Your task to perform on an android device: turn off notifications in google photos Image 0: 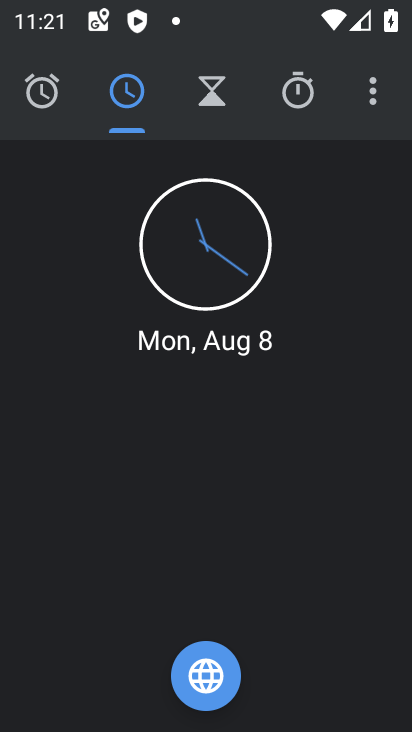
Step 0: press back button
Your task to perform on an android device: turn off notifications in google photos Image 1: 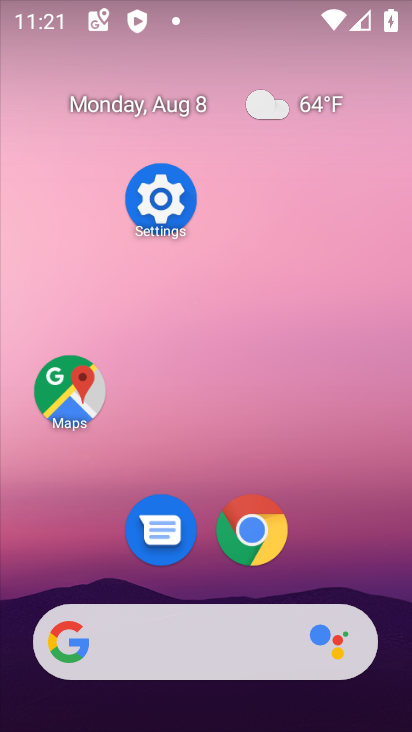
Step 1: drag from (226, 426) to (213, 136)
Your task to perform on an android device: turn off notifications in google photos Image 2: 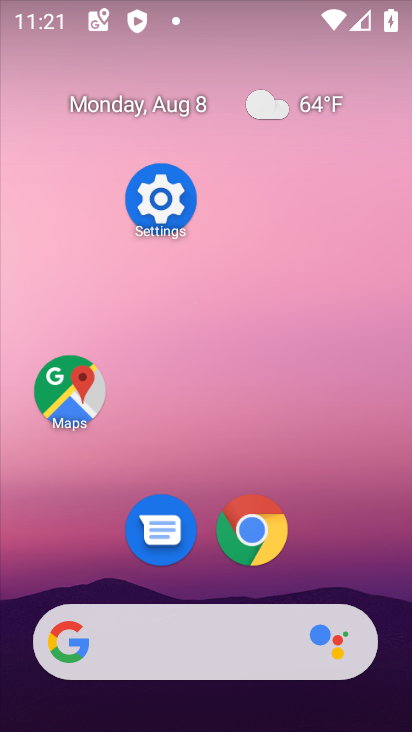
Step 2: drag from (220, 679) to (215, 109)
Your task to perform on an android device: turn off notifications in google photos Image 3: 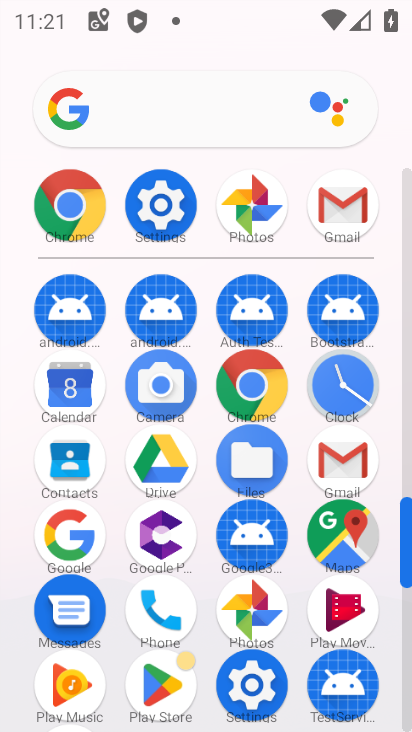
Step 3: drag from (229, 427) to (201, 131)
Your task to perform on an android device: turn off notifications in google photos Image 4: 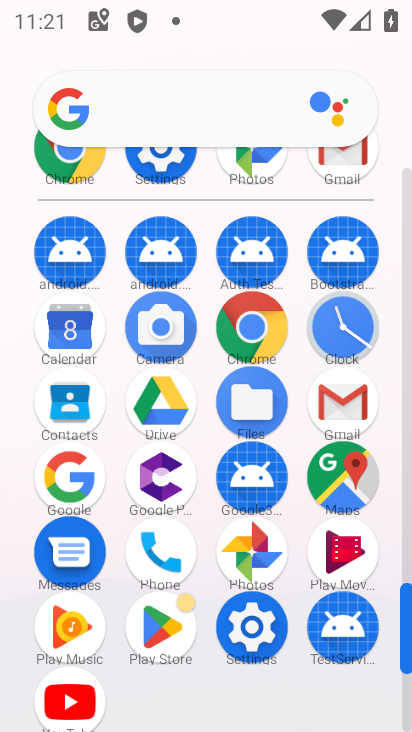
Step 4: click (242, 545)
Your task to perform on an android device: turn off notifications in google photos Image 5: 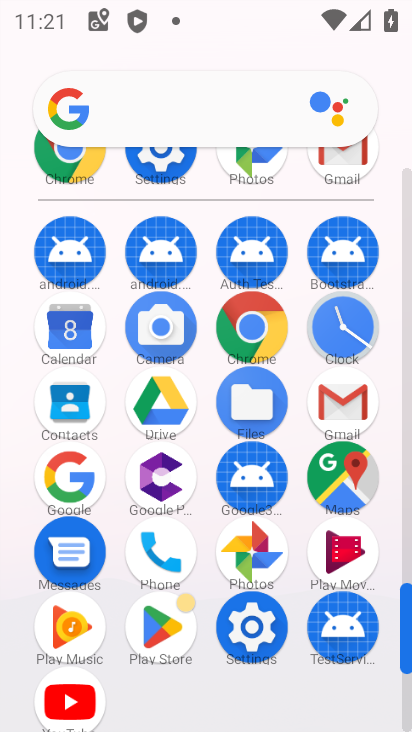
Step 5: click (242, 545)
Your task to perform on an android device: turn off notifications in google photos Image 6: 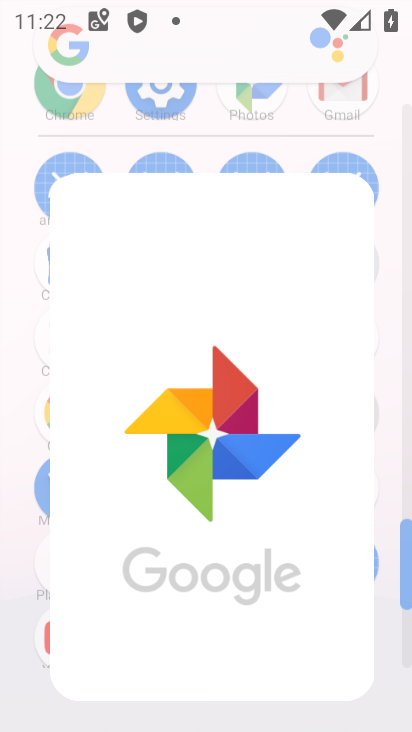
Step 6: click (260, 549)
Your task to perform on an android device: turn off notifications in google photos Image 7: 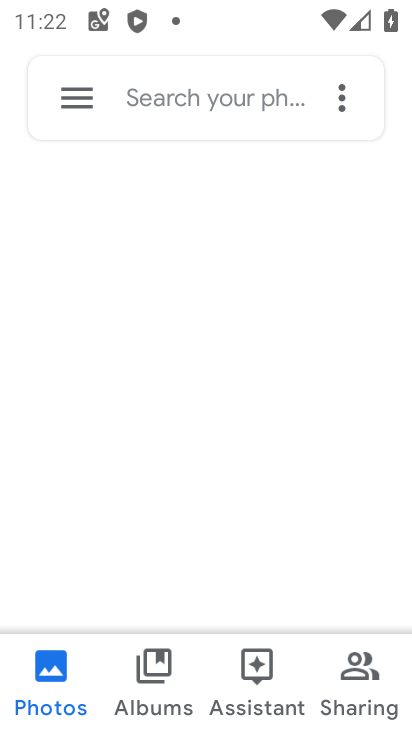
Step 7: click (263, 549)
Your task to perform on an android device: turn off notifications in google photos Image 8: 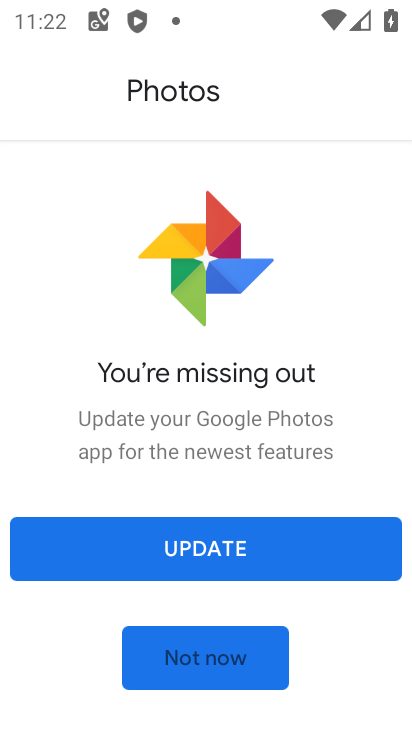
Step 8: click (186, 641)
Your task to perform on an android device: turn off notifications in google photos Image 9: 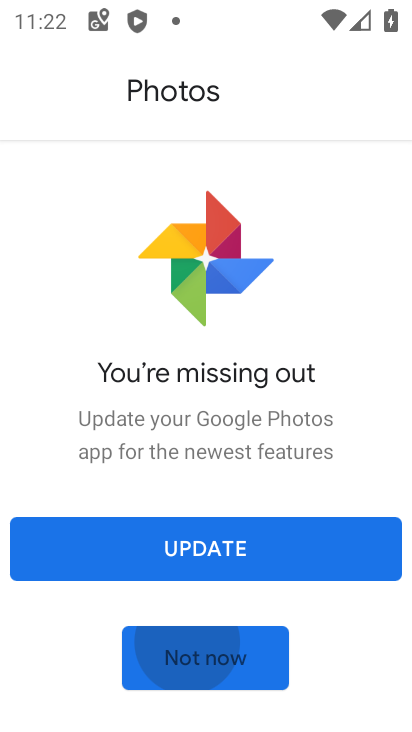
Step 9: click (196, 650)
Your task to perform on an android device: turn off notifications in google photos Image 10: 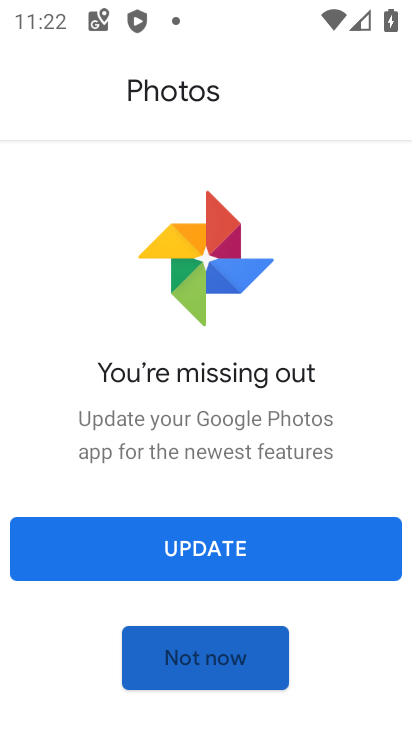
Step 10: click (200, 655)
Your task to perform on an android device: turn off notifications in google photos Image 11: 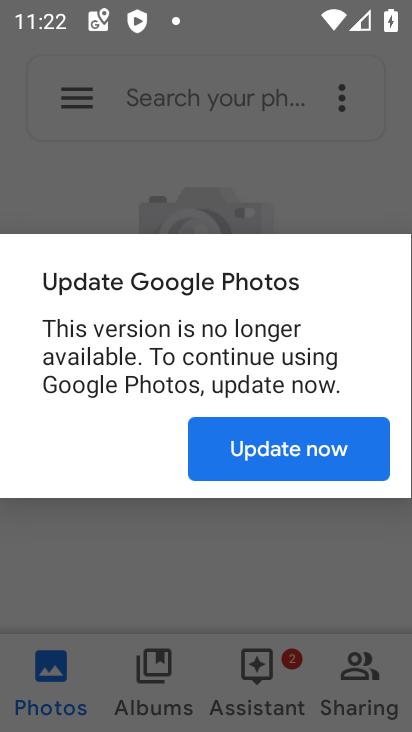
Step 11: click (297, 442)
Your task to perform on an android device: turn off notifications in google photos Image 12: 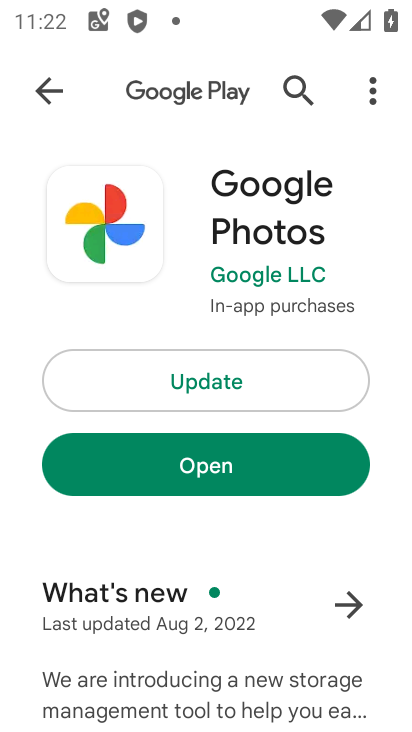
Step 12: click (238, 462)
Your task to perform on an android device: turn off notifications in google photos Image 13: 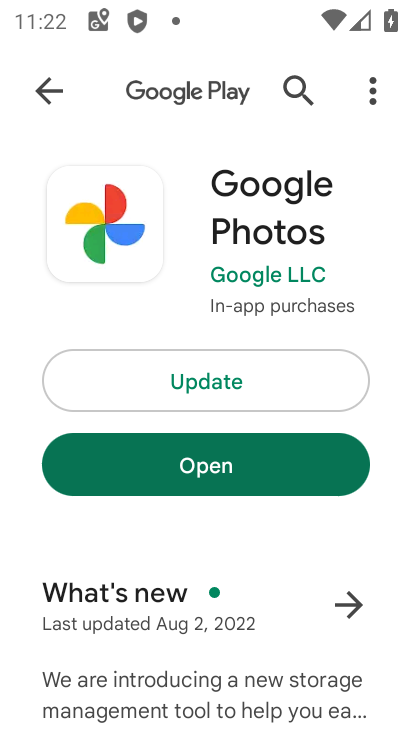
Step 13: click (235, 463)
Your task to perform on an android device: turn off notifications in google photos Image 14: 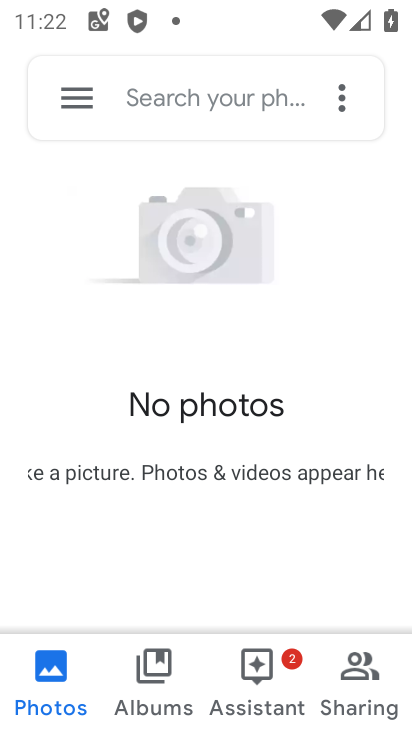
Step 14: click (161, 660)
Your task to perform on an android device: turn off notifications in google photos Image 15: 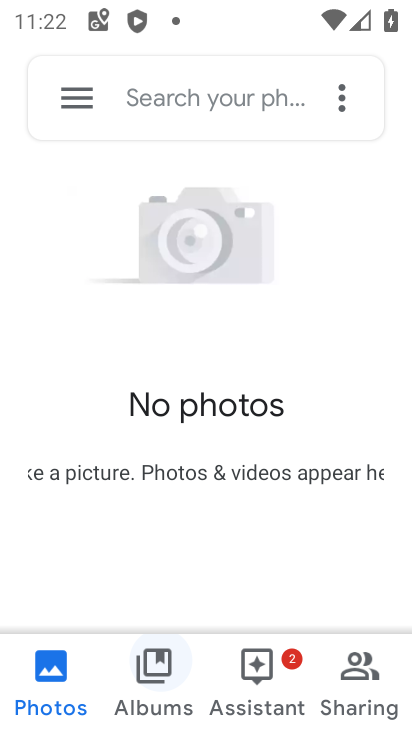
Step 15: click (161, 660)
Your task to perform on an android device: turn off notifications in google photos Image 16: 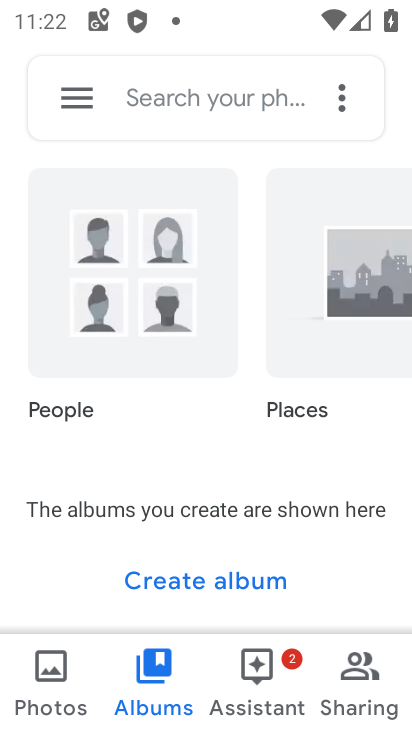
Step 16: drag from (204, 552) to (204, 187)
Your task to perform on an android device: turn off notifications in google photos Image 17: 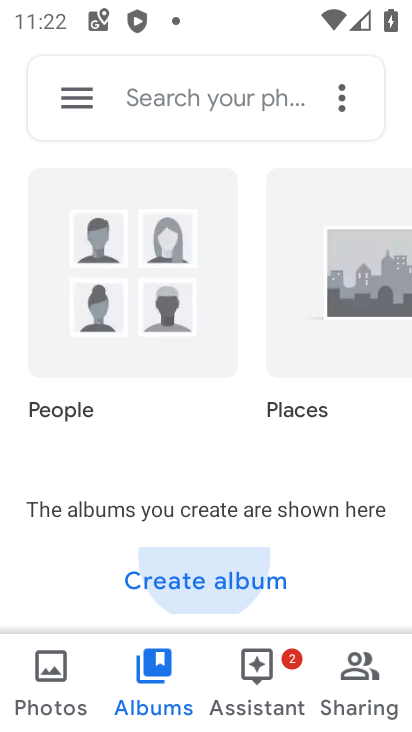
Step 17: drag from (237, 484) to (214, 138)
Your task to perform on an android device: turn off notifications in google photos Image 18: 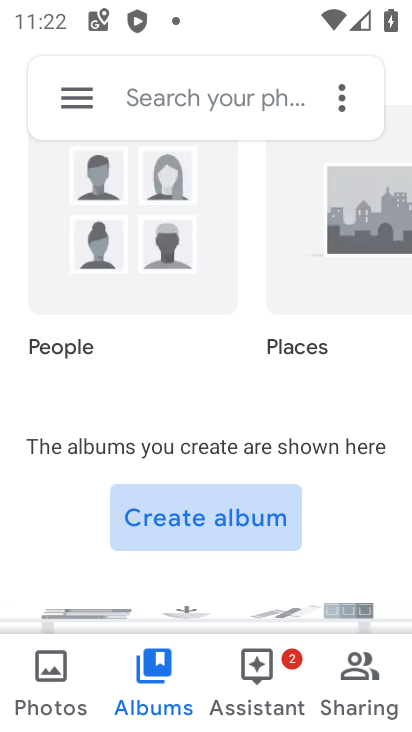
Step 18: drag from (261, 473) to (274, 150)
Your task to perform on an android device: turn off notifications in google photos Image 19: 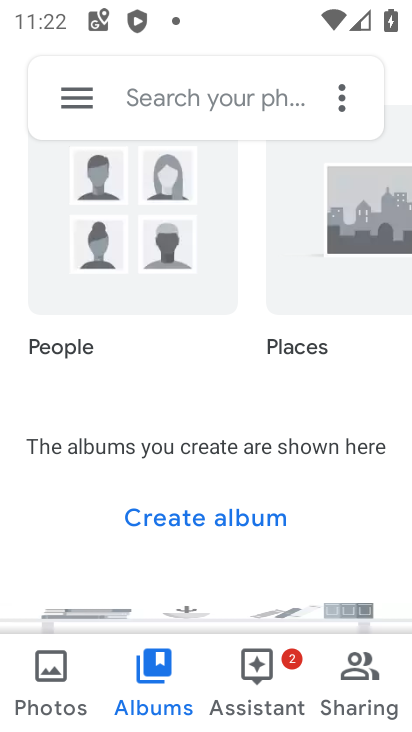
Step 19: drag from (282, 412) to (270, 141)
Your task to perform on an android device: turn off notifications in google photos Image 20: 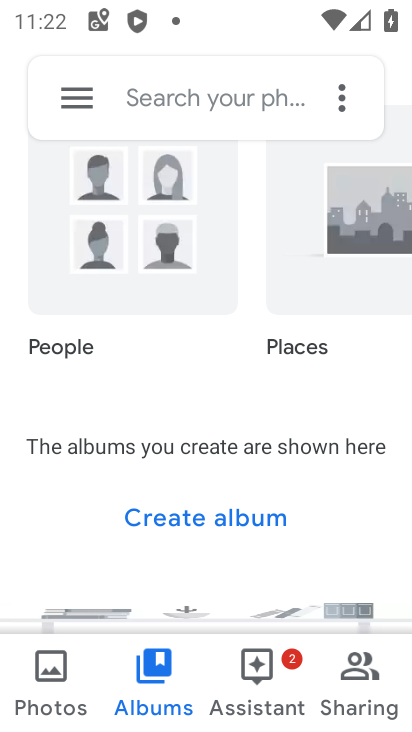
Step 20: drag from (200, 507) to (206, 104)
Your task to perform on an android device: turn off notifications in google photos Image 21: 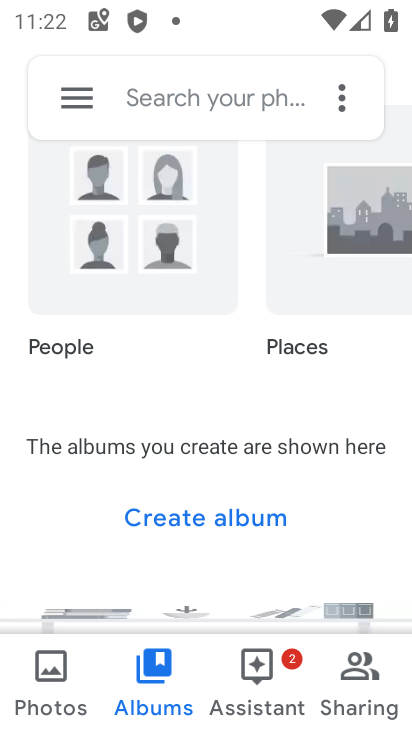
Step 21: click (40, 673)
Your task to perform on an android device: turn off notifications in google photos Image 22: 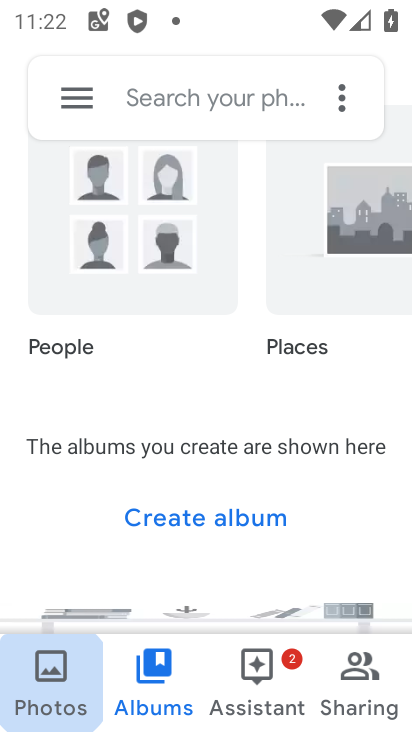
Step 22: click (41, 674)
Your task to perform on an android device: turn off notifications in google photos Image 23: 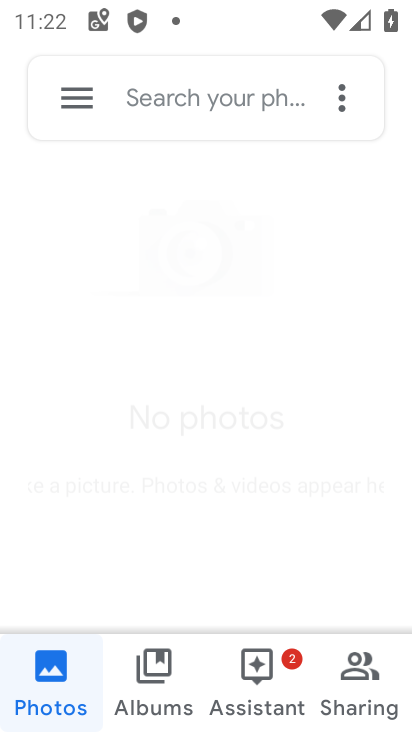
Step 23: click (41, 674)
Your task to perform on an android device: turn off notifications in google photos Image 24: 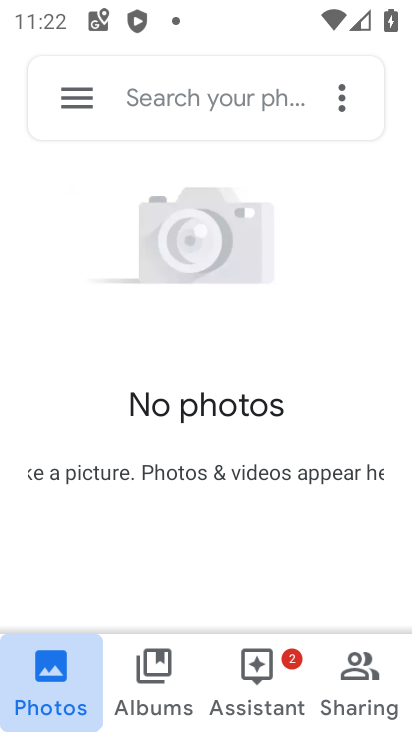
Step 24: click (44, 674)
Your task to perform on an android device: turn off notifications in google photos Image 25: 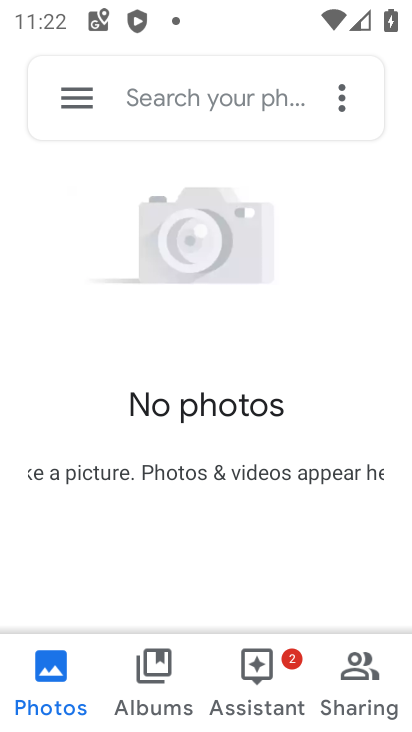
Step 25: task complete